Your task to perform on an android device: toggle notifications settings in the gmail app Image 0: 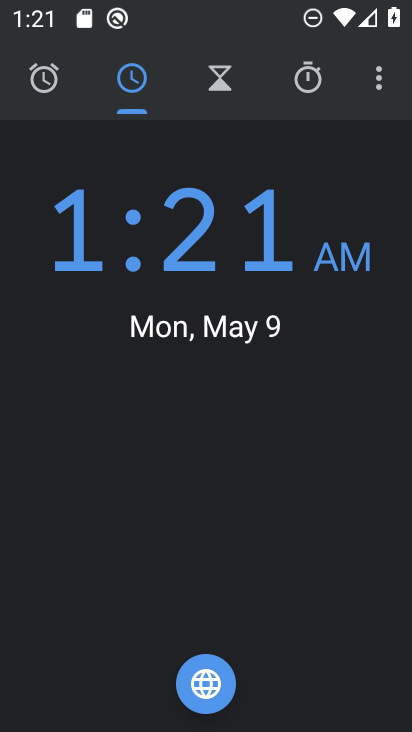
Step 0: drag from (216, 590) to (245, 345)
Your task to perform on an android device: toggle notifications settings in the gmail app Image 1: 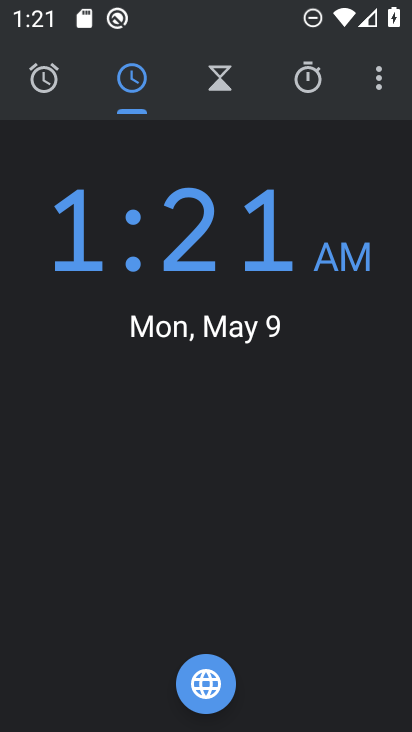
Step 1: press home button
Your task to perform on an android device: toggle notifications settings in the gmail app Image 2: 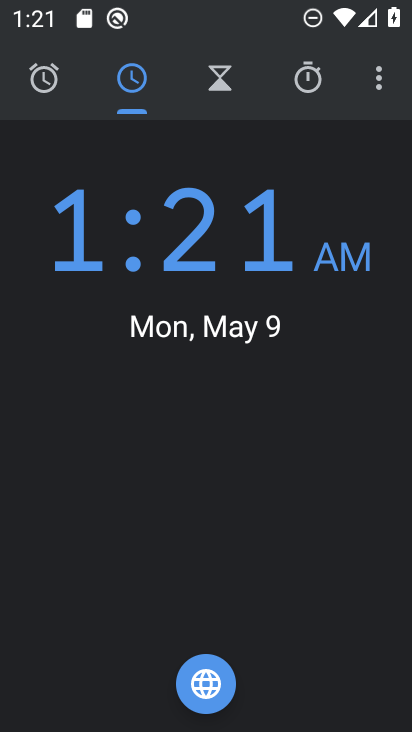
Step 2: press home button
Your task to perform on an android device: toggle notifications settings in the gmail app Image 3: 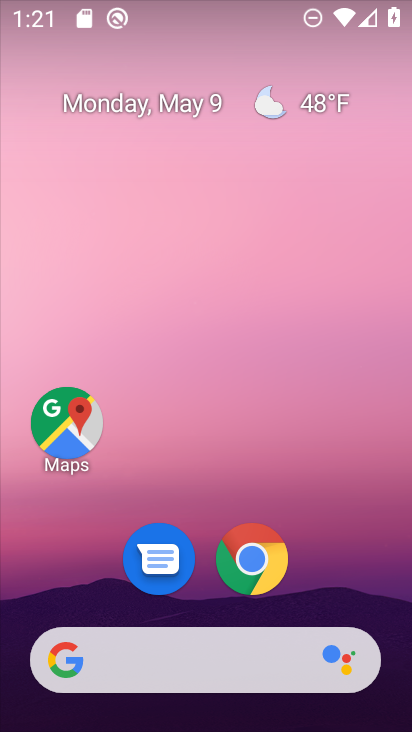
Step 3: drag from (203, 603) to (356, 107)
Your task to perform on an android device: toggle notifications settings in the gmail app Image 4: 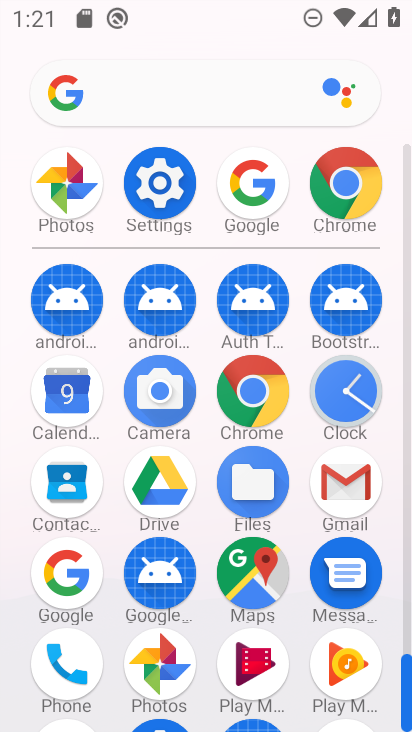
Step 4: click (358, 478)
Your task to perform on an android device: toggle notifications settings in the gmail app Image 5: 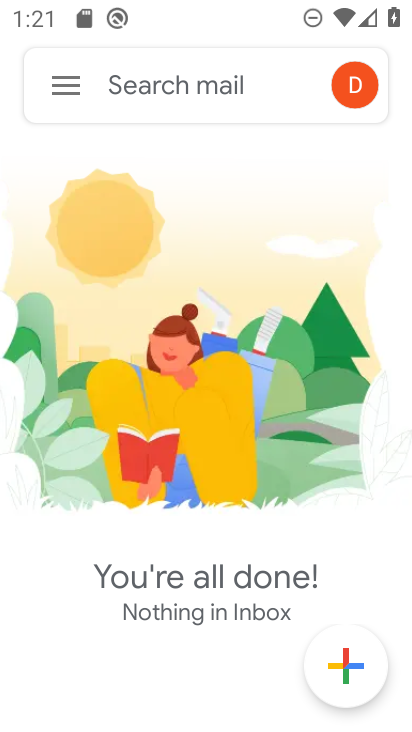
Step 5: drag from (226, 588) to (295, 225)
Your task to perform on an android device: toggle notifications settings in the gmail app Image 6: 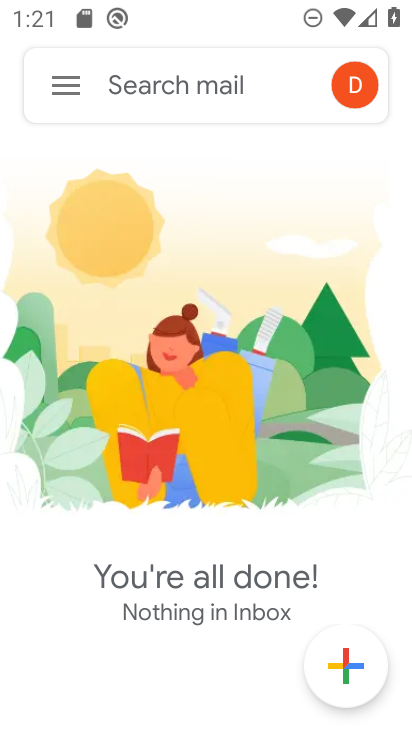
Step 6: drag from (202, 571) to (234, 290)
Your task to perform on an android device: toggle notifications settings in the gmail app Image 7: 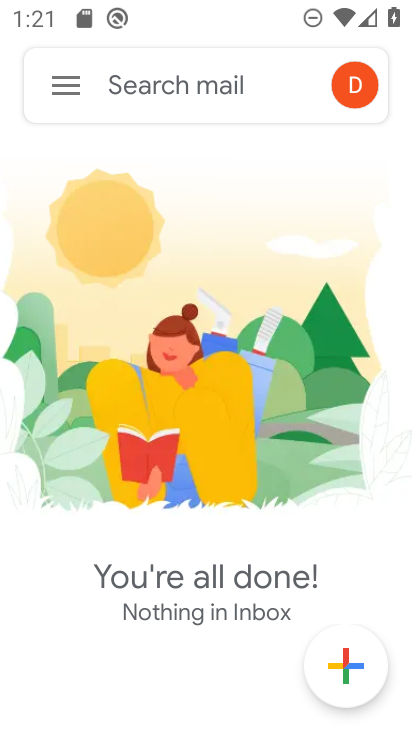
Step 7: click (59, 81)
Your task to perform on an android device: toggle notifications settings in the gmail app Image 8: 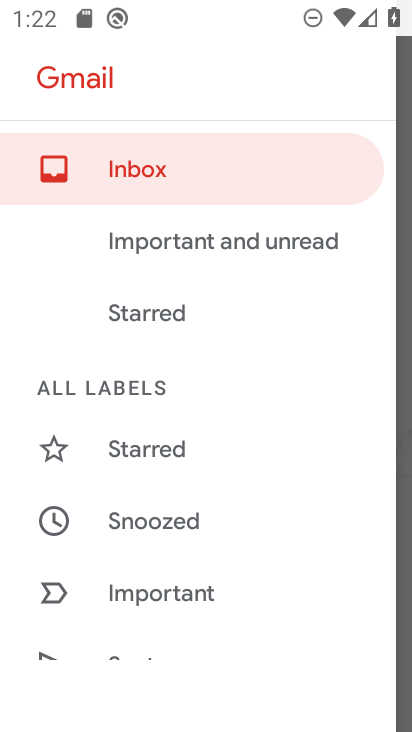
Step 8: drag from (151, 627) to (315, 164)
Your task to perform on an android device: toggle notifications settings in the gmail app Image 9: 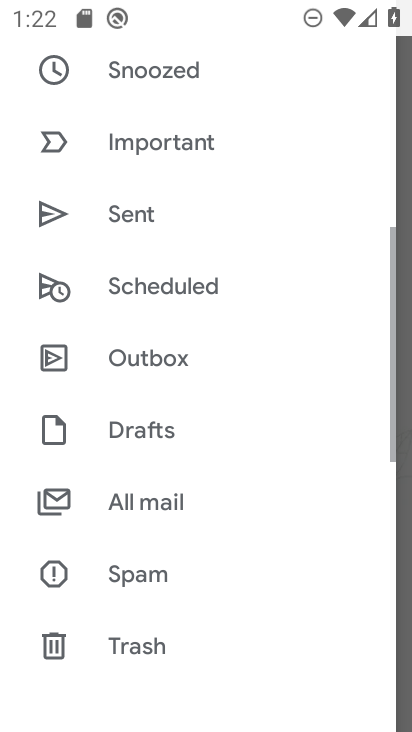
Step 9: drag from (162, 621) to (280, 176)
Your task to perform on an android device: toggle notifications settings in the gmail app Image 10: 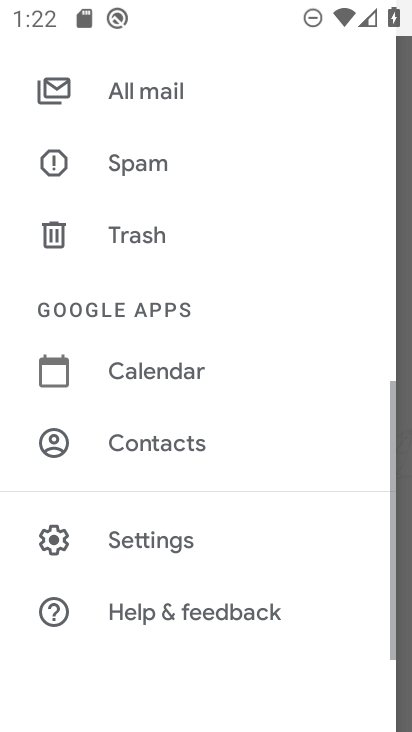
Step 10: click (160, 537)
Your task to perform on an android device: toggle notifications settings in the gmail app Image 11: 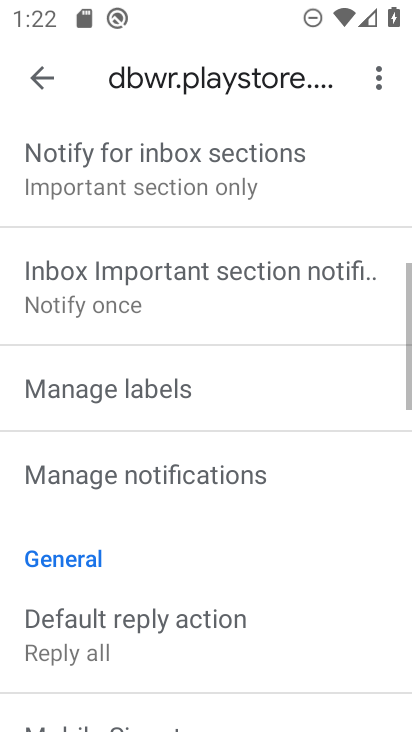
Step 11: drag from (272, 552) to (362, 117)
Your task to perform on an android device: toggle notifications settings in the gmail app Image 12: 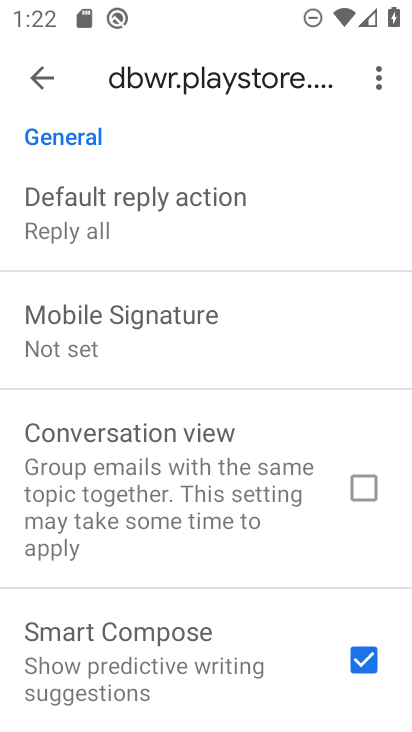
Step 12: drag from (197, 571) to (301, 138)
Your task to perform on an android device: toggle notifications settings in the gmail app Image 13: 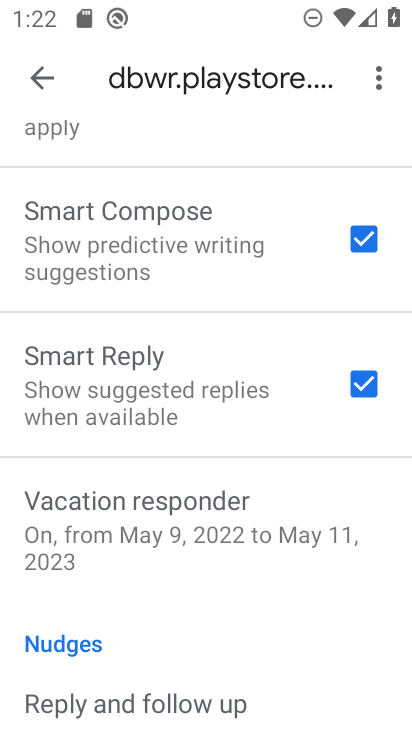
Step 13: drag from (156, 646) to (289, 236)
Your task to perform on an android device: toggle notifications settings in the gmail app Image 14: 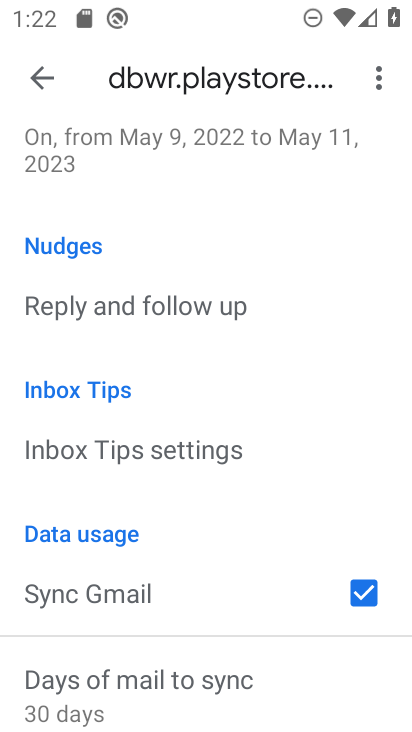
Step 14: drag from (239, 543) to (323, 154)
Your task to perform on an android device: toggle notifications settings in the gmail app Image 15: 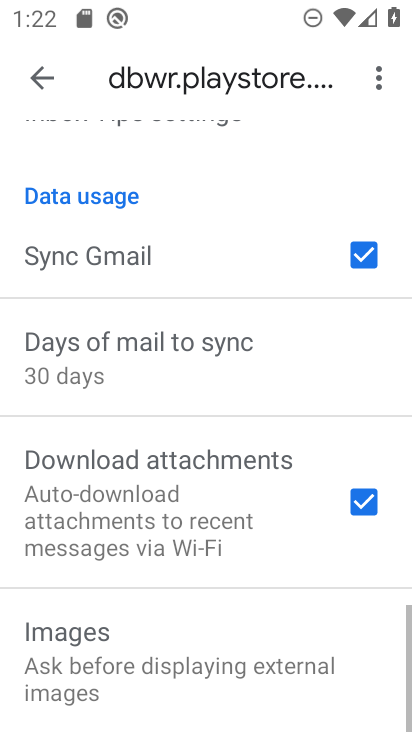
Step 15: drag from (202, 589) to (274, 253)
Your task to perform on an android device: toggle notifications settings in the gmail app Image 16: 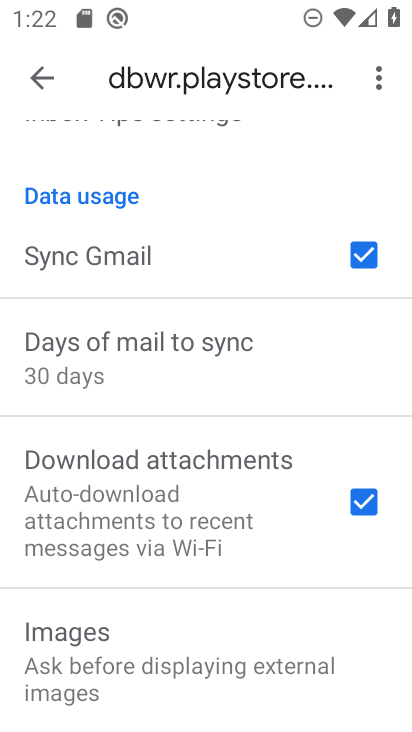
Step 16: drag from (207, 293) to (258, 678)
Your task to perform on an android device: toggle notifications settings in the gmail app Image 17: 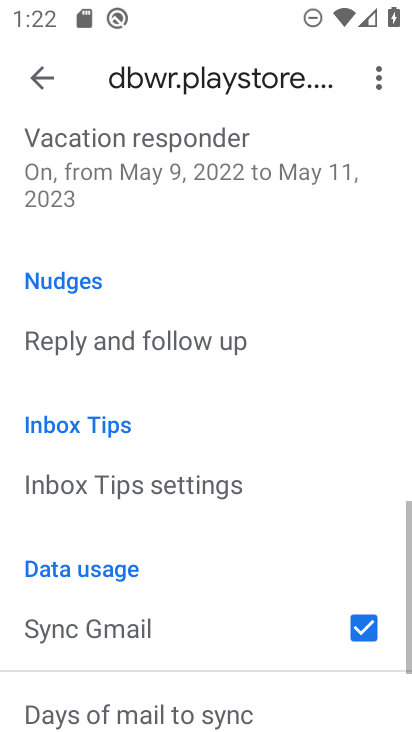
Step 17: drag from (220, 163) to (221, 627)
Your task to perform on an android device: toggle notifications settings in the gmail app Image 18: 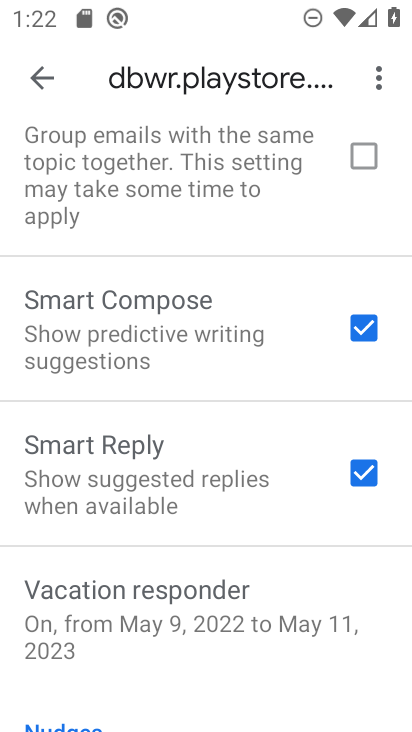
Step 18: drag from (189, 184) to (241, 609)
Your task to perform on an android device: toggle notifications settings in the gmail app Image 19: 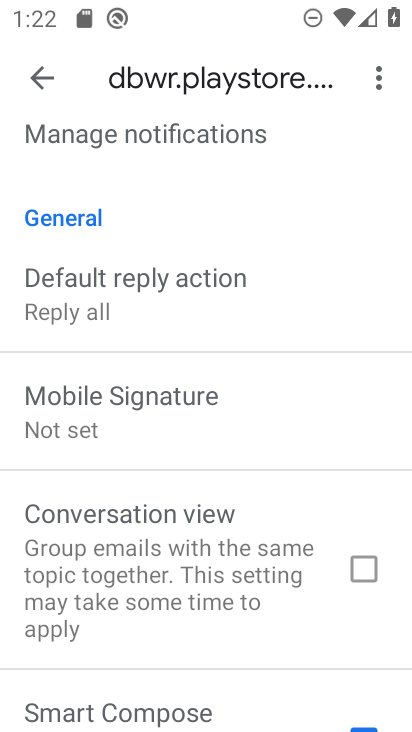
Step 19: click (116, 126)
Your task to perform on an android device: toggle notifications settings in the gmail app Image 20: 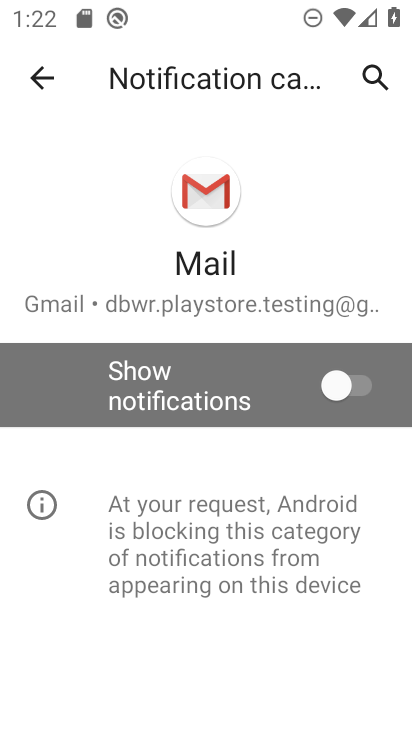
Step 20: task complete